Your task to perform on an android device: Open Google Maps and go to "Timeline" Image 0: 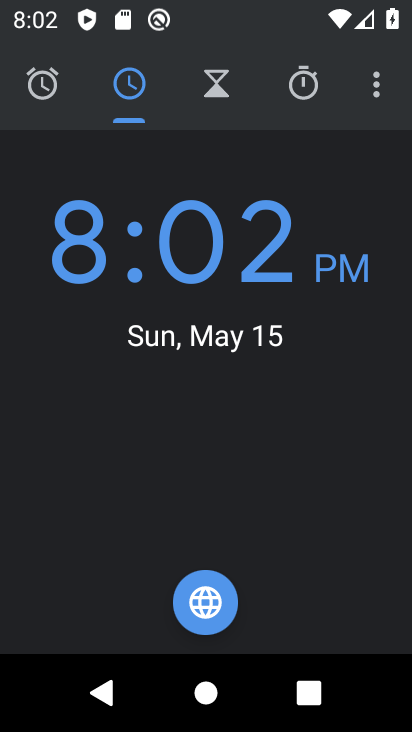
Step 0: press home button
Your task to perform on an android device: Open Google Maps and go to "Timeline" Image 1: 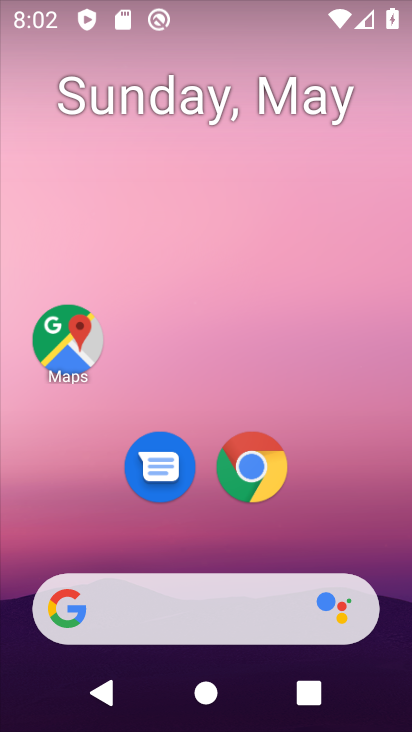
Step 1: click (87, 325)
Your task to perform on an android device: Open Google Maps and go to "Timeline" Image 2: 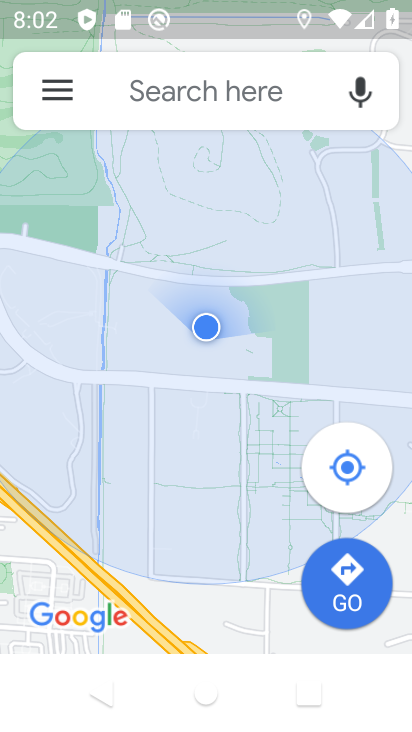
Step 2: click (57, 104)
Your task to perform on an android device: Open Google Maps and go to "Timeline" Image 3: 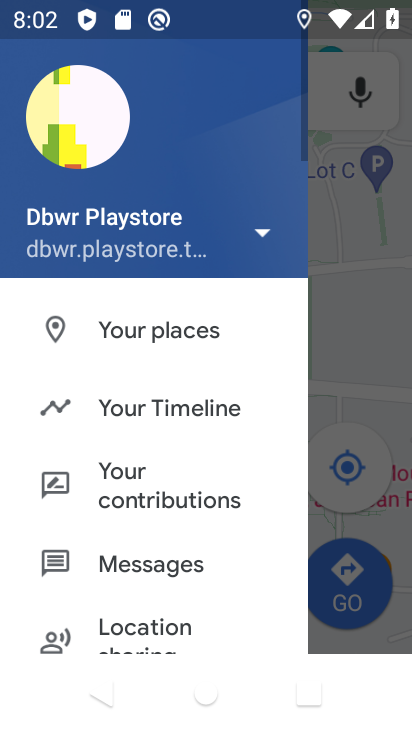
Step 3: click (153, 400)
Your task to perform on an android device: Open Google Maps and go to "Timeline" Image 4: 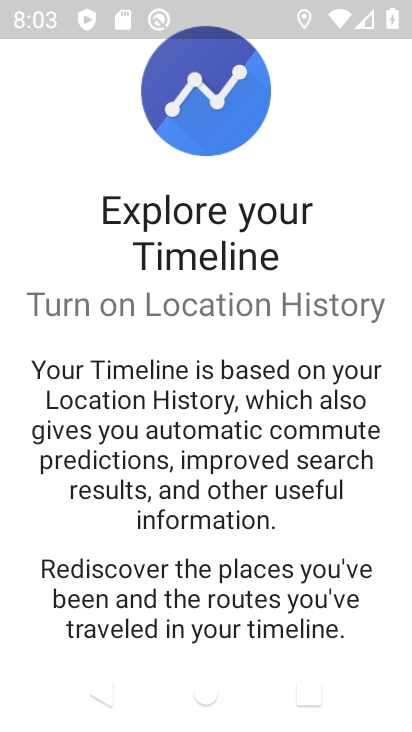
Step 4: drag from (226, 562) to (269, 48)
Your task to perform on an android device: Open Google Maps and go to "Timeline" Image 5: 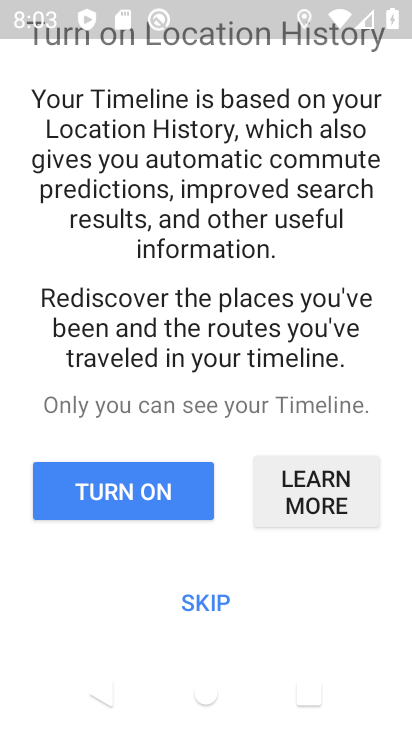
Step 5: click (154, 498)
Your task to perform on an android device: Open Google Maps and go to "Timeline" Image 6: 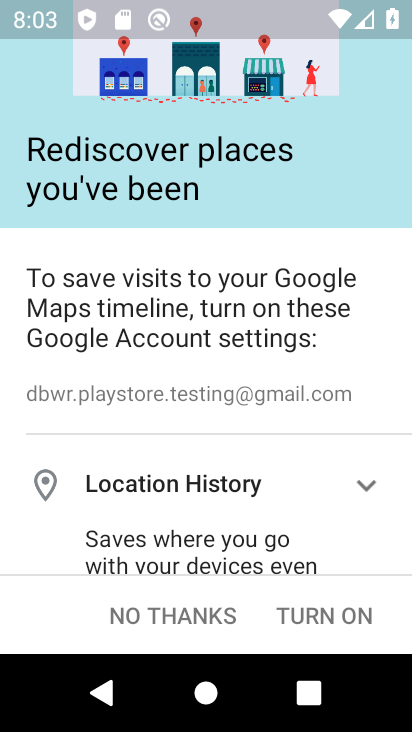
Step 6: click (330, 607)
Your task to perform on an android device: Open Google Maps and go to "Timeline" Image 7: 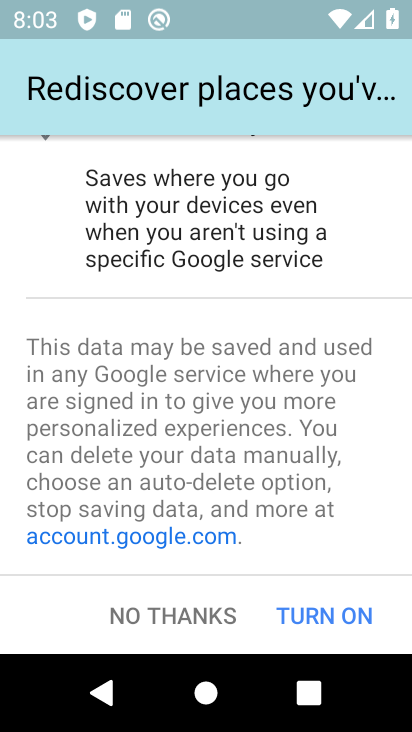
Step 7: click (330, 607)
Your task to perform on an android device: Open Google Maps and go to "Timeline" Image 8: 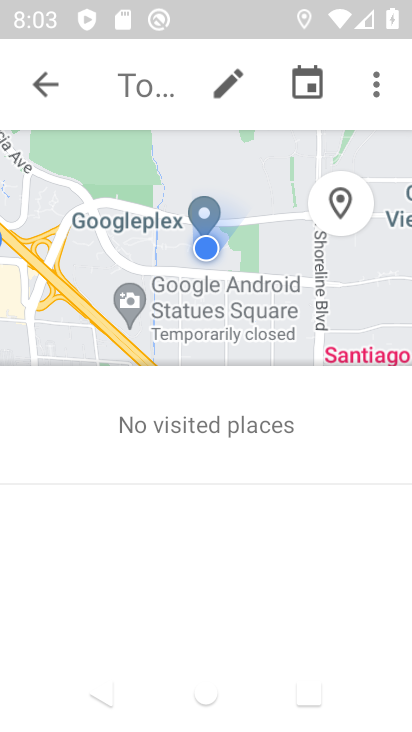
Step 8: task complete